Your task to perform on an android device: Play the latest video from the Huffington Post Image 0: 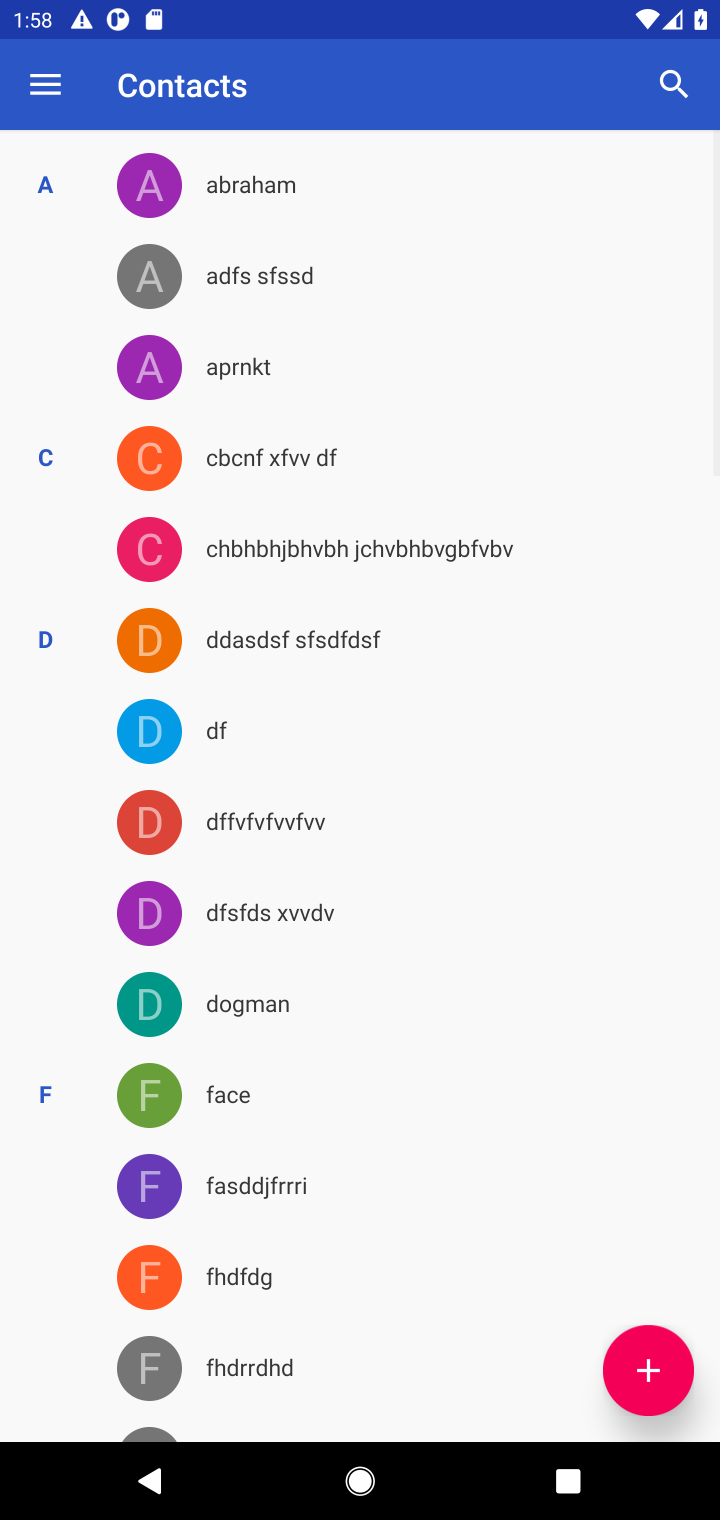
Step 0: press home button
Your task to perform on an android device: Play the latest video from the Huffington Post Image 1: 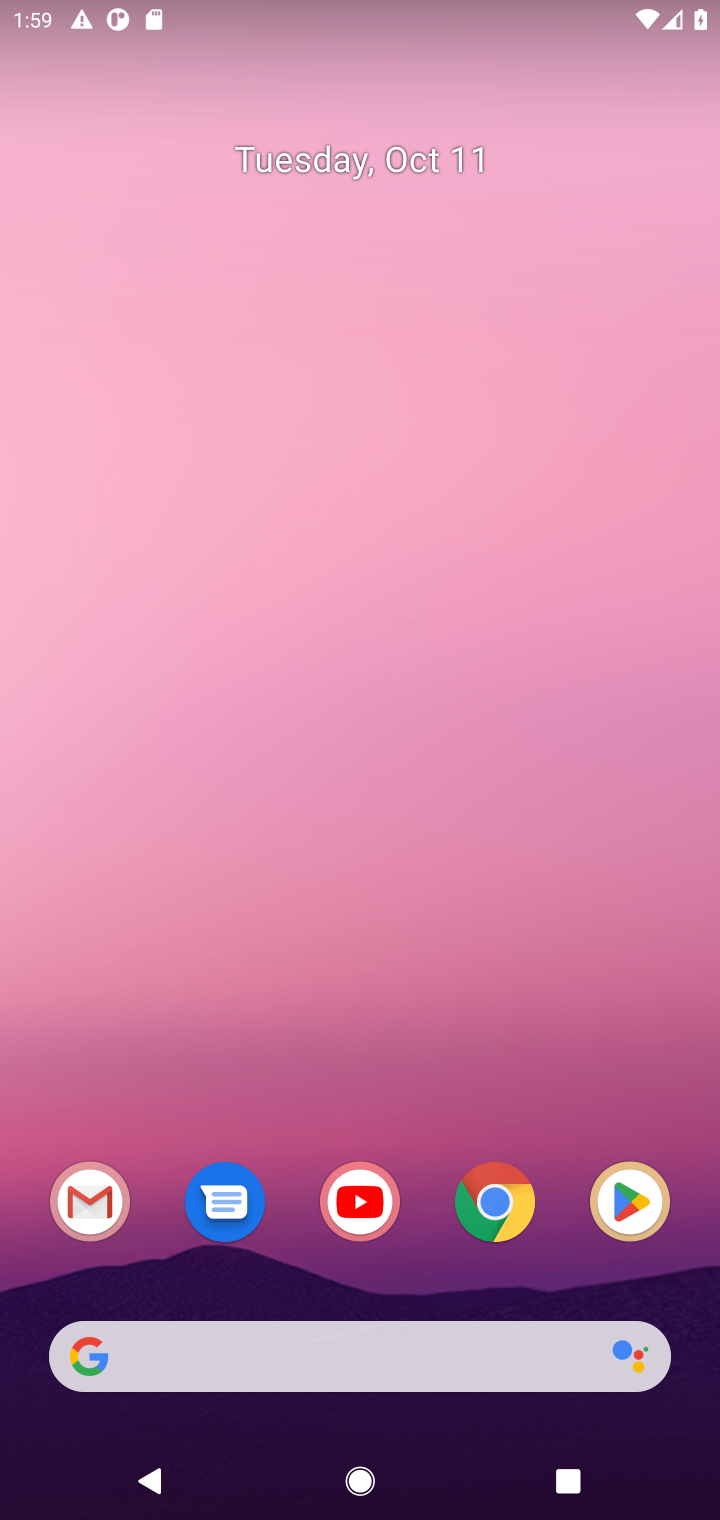
Step 1: click (497, 1205)
Your task to perform on an android device: Play the latest video from the Huffington Post Image 2: 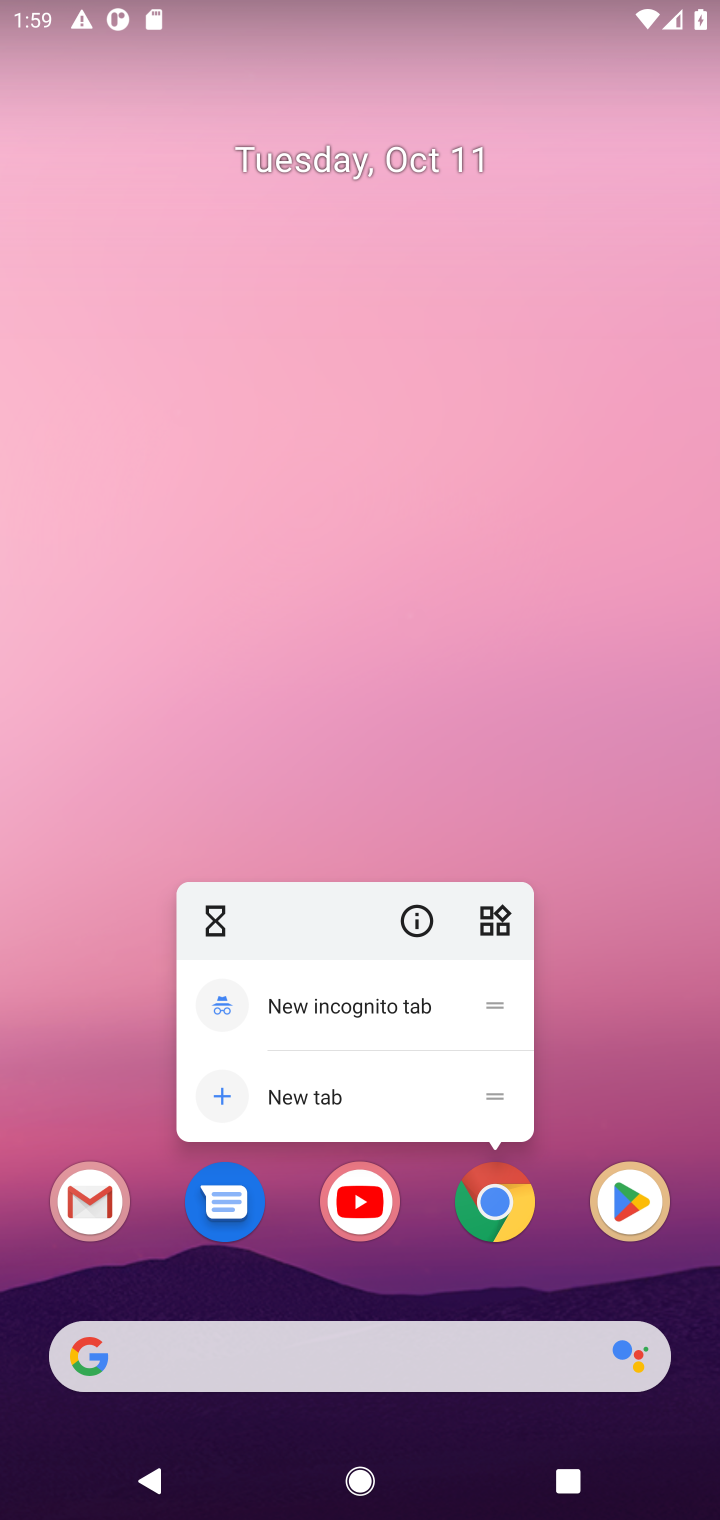
Step 2: click (497, 1218)
Your task to perform on an android device: Play the latest video from the Huffington Post Image 3: 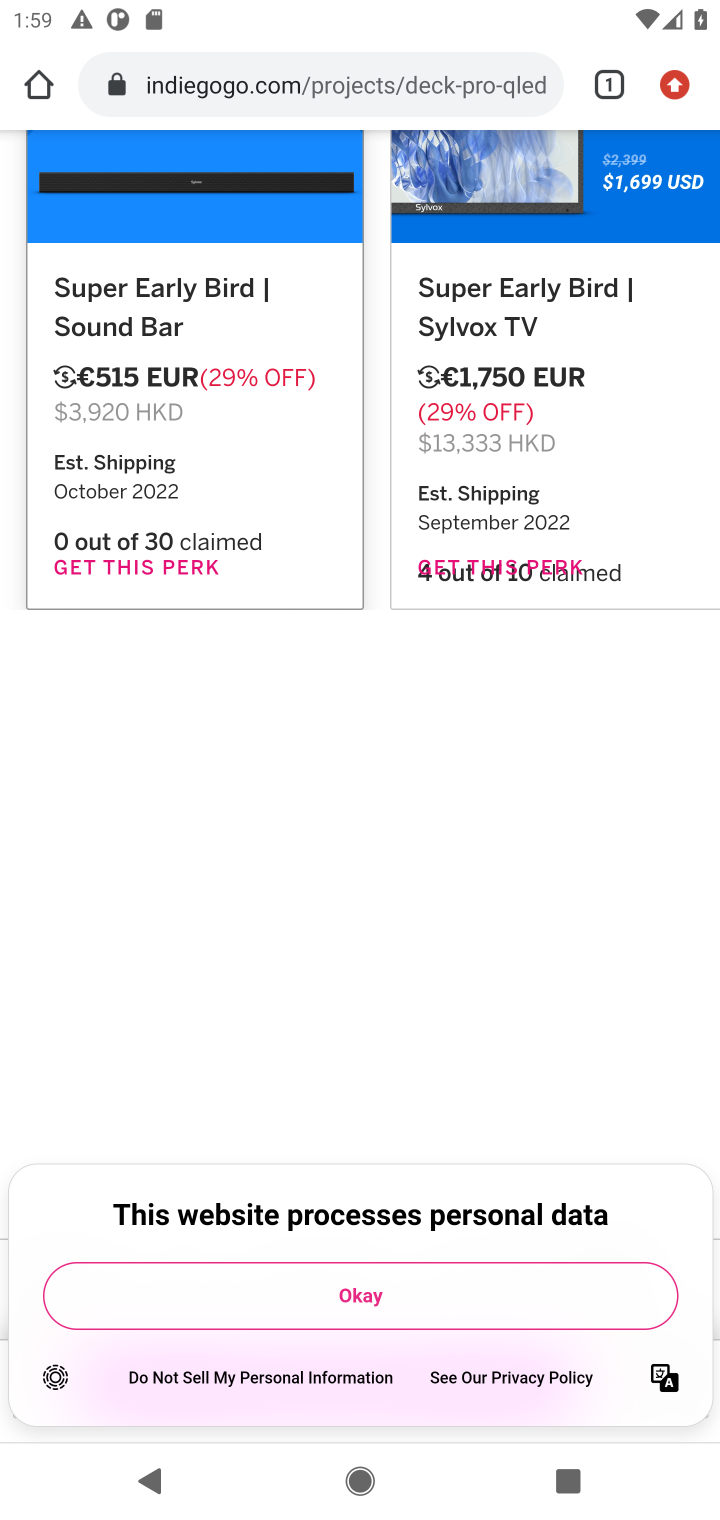
Step 3: click (440, 77)
Your task to perform on an android device: Play the latest video from the Huffington Post Image 4: 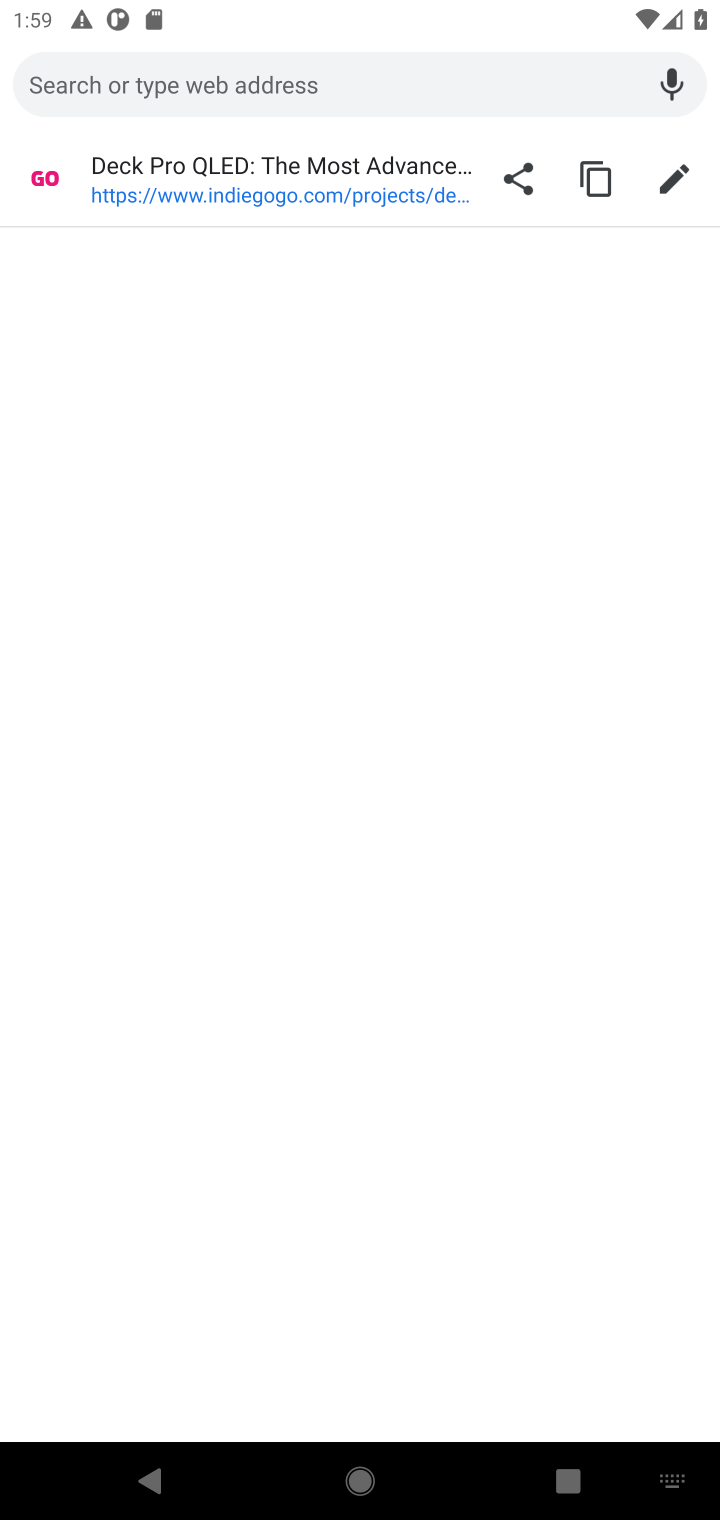
Step 4: type "Play the latest video from the Huffington Post"
Your task to perform on an android device: Play the latest video from the Huffington Post Image 5: 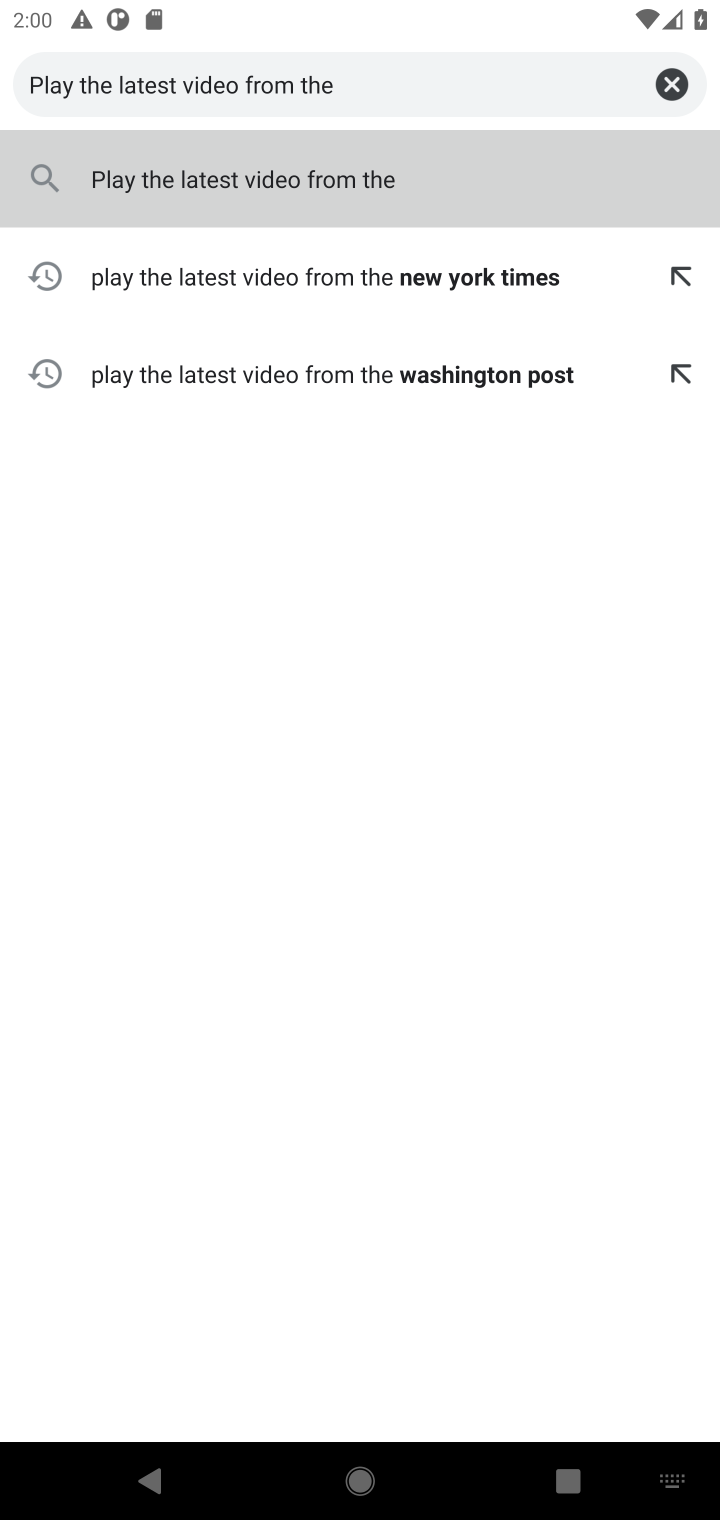
Step 5: press enter
Your task to perform on an android device: Play the latest video from the Huffington Post Image 6: 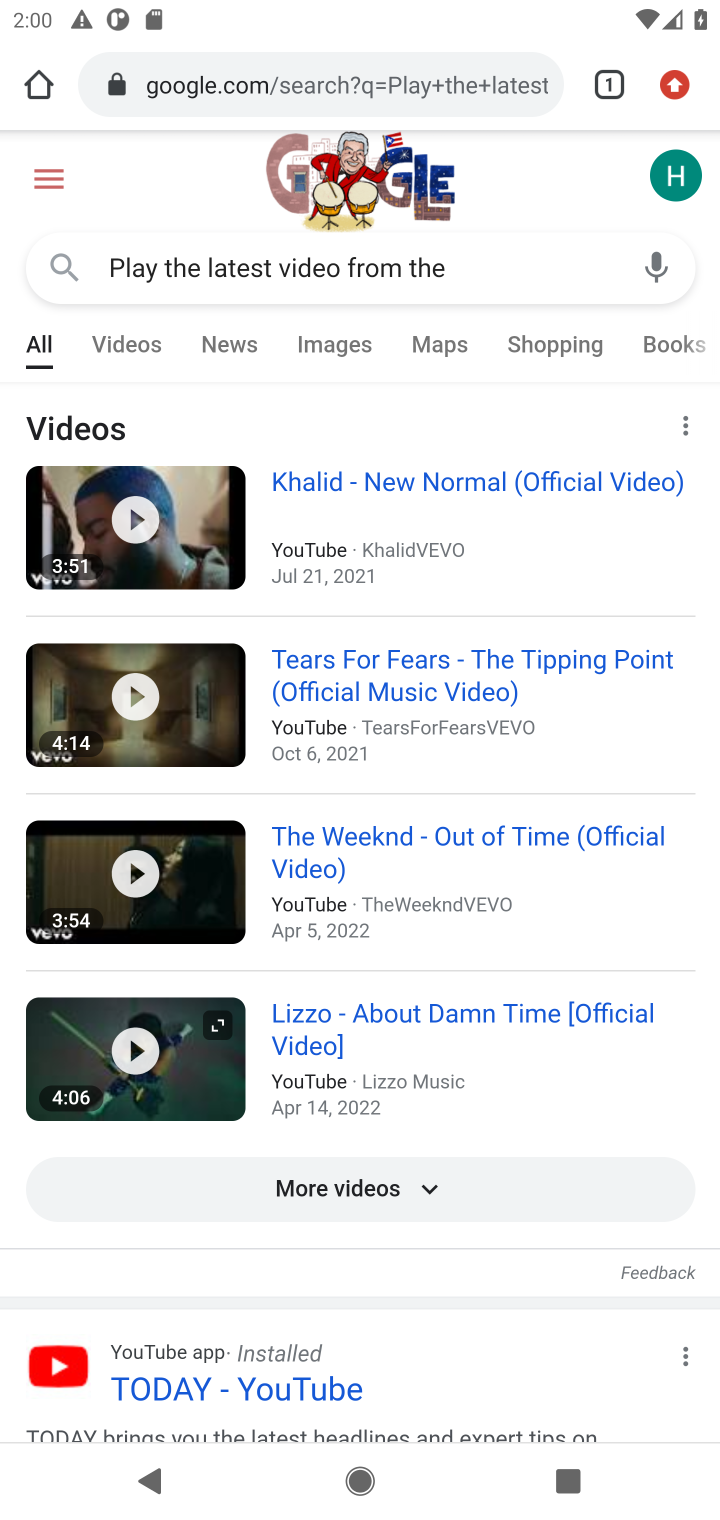
Step 6: click (163, 712)
Your task to perform on an android device: Play the latest video from the Huffington Post Image 7: 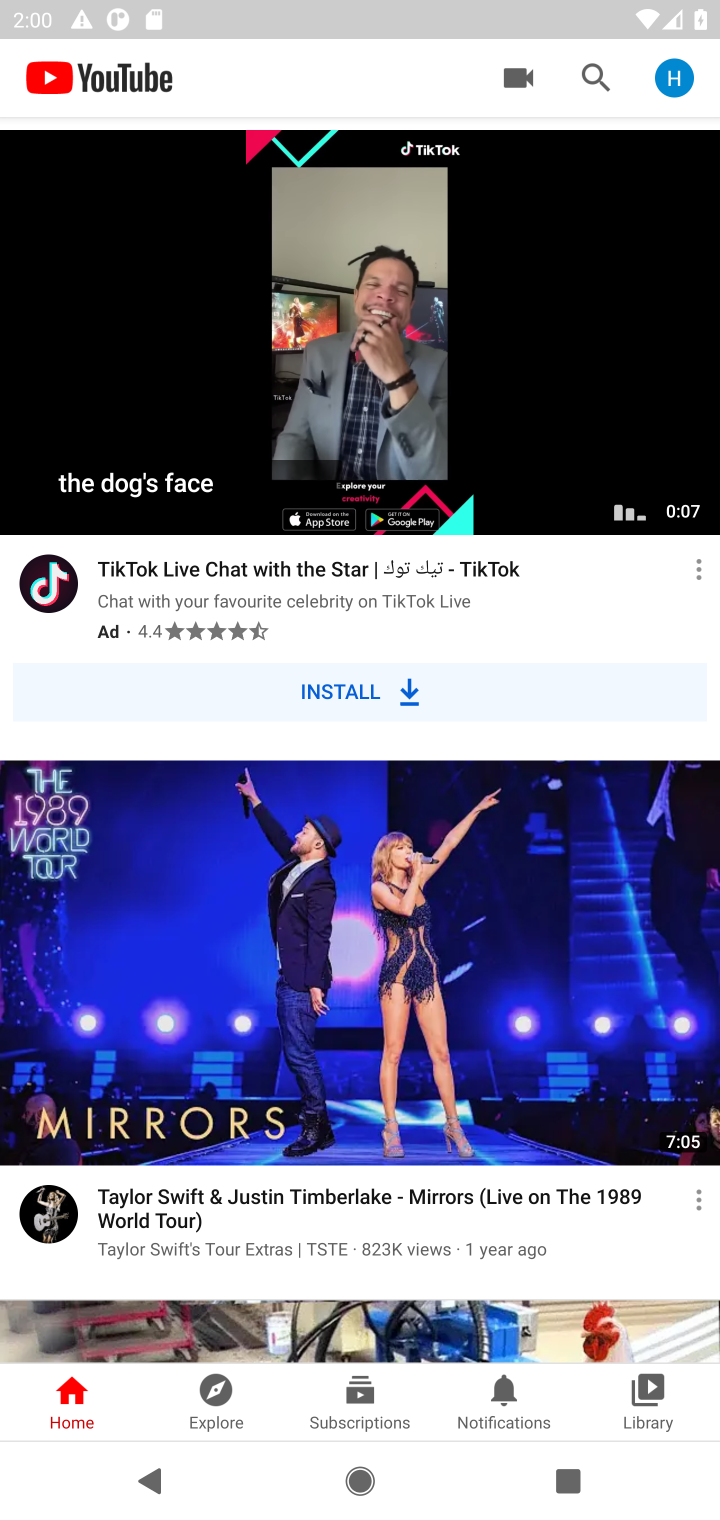
Step 7: drag from (243, 1238) to (695, 266)
Your task to perform on an android device: Play the latest video from the Huffington Post Image 8: 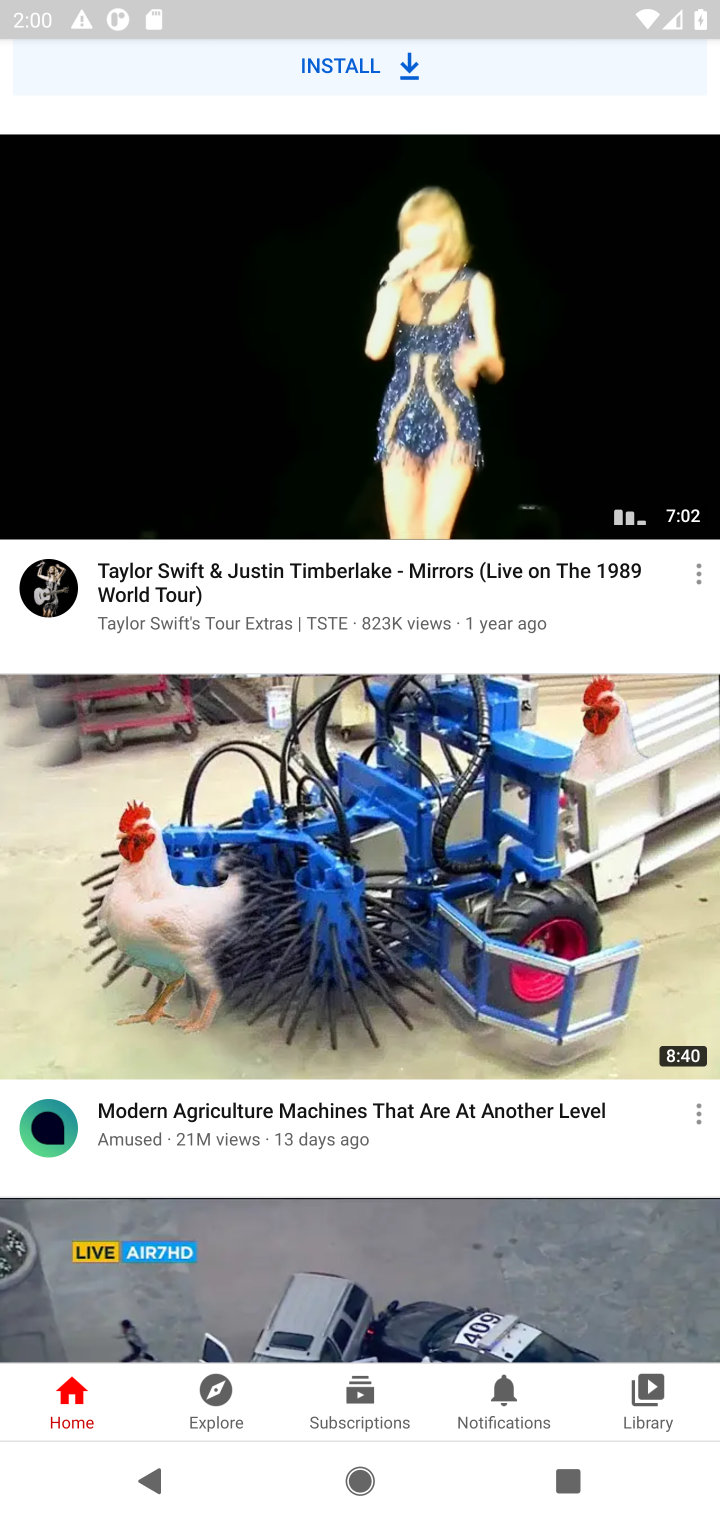
Step 8: drag from (505, 656) to (371, 1343)
Your task to perform on an android device: Play the latest video from the Huffington Post Image 9: 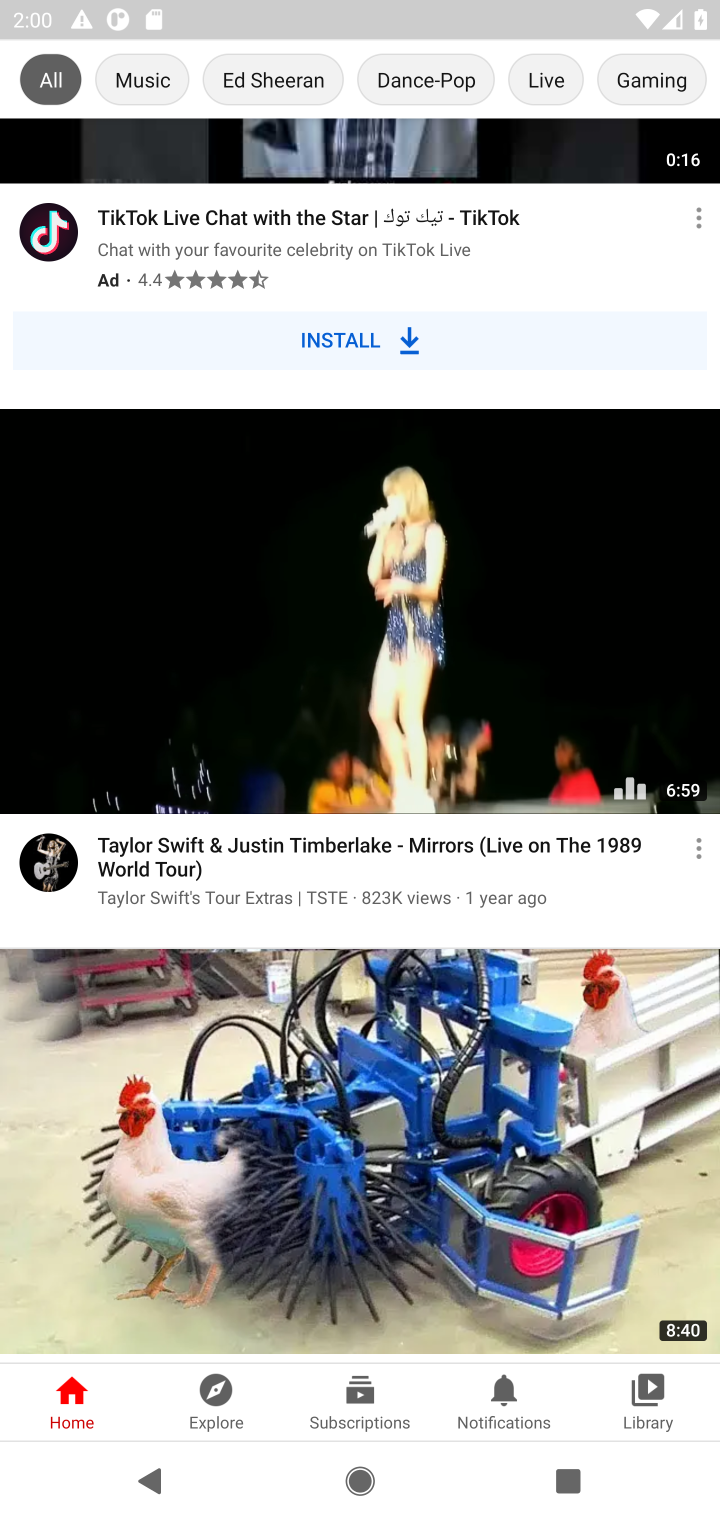
Step 9: drag from (460, 363) to (460, 1079)
Your task to perform on an android device: Play the latest video from the Huffington Post Image 10: 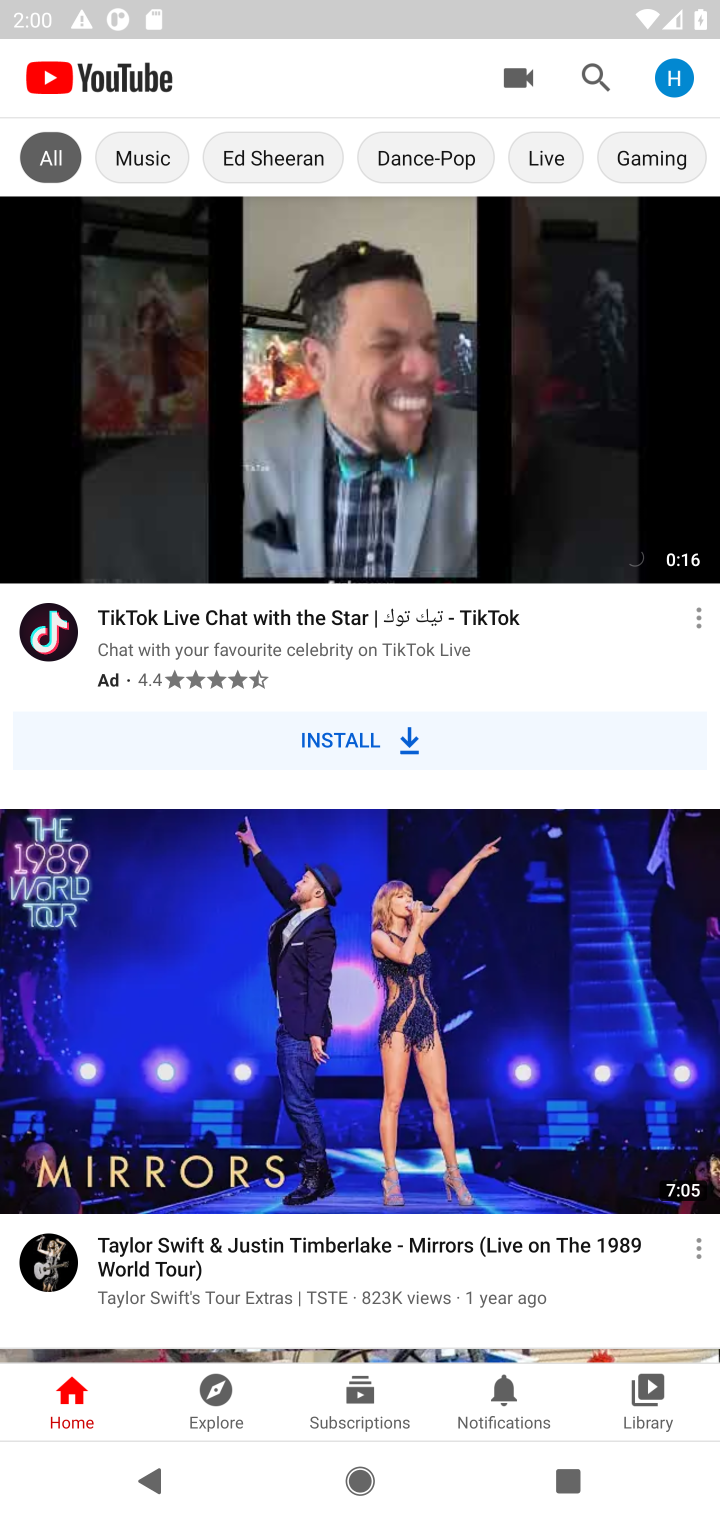
Step 10: click (371, 329)
Your task to perform on an android device: Play the latest video from the Huffington Post Image 11: 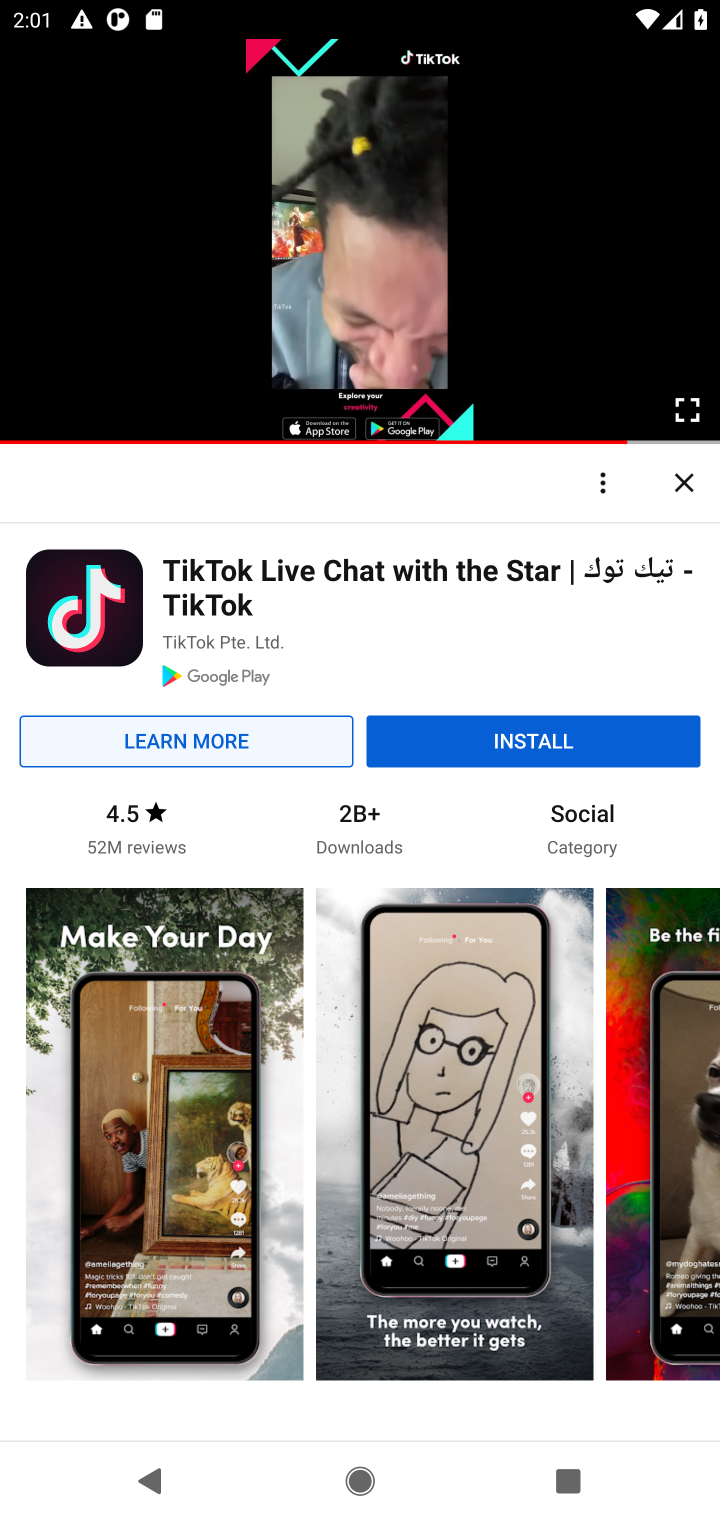
Step 11: click (381, 206)
Your task to perform on an android device: Play the latest video from the Huffington Post Image 12: 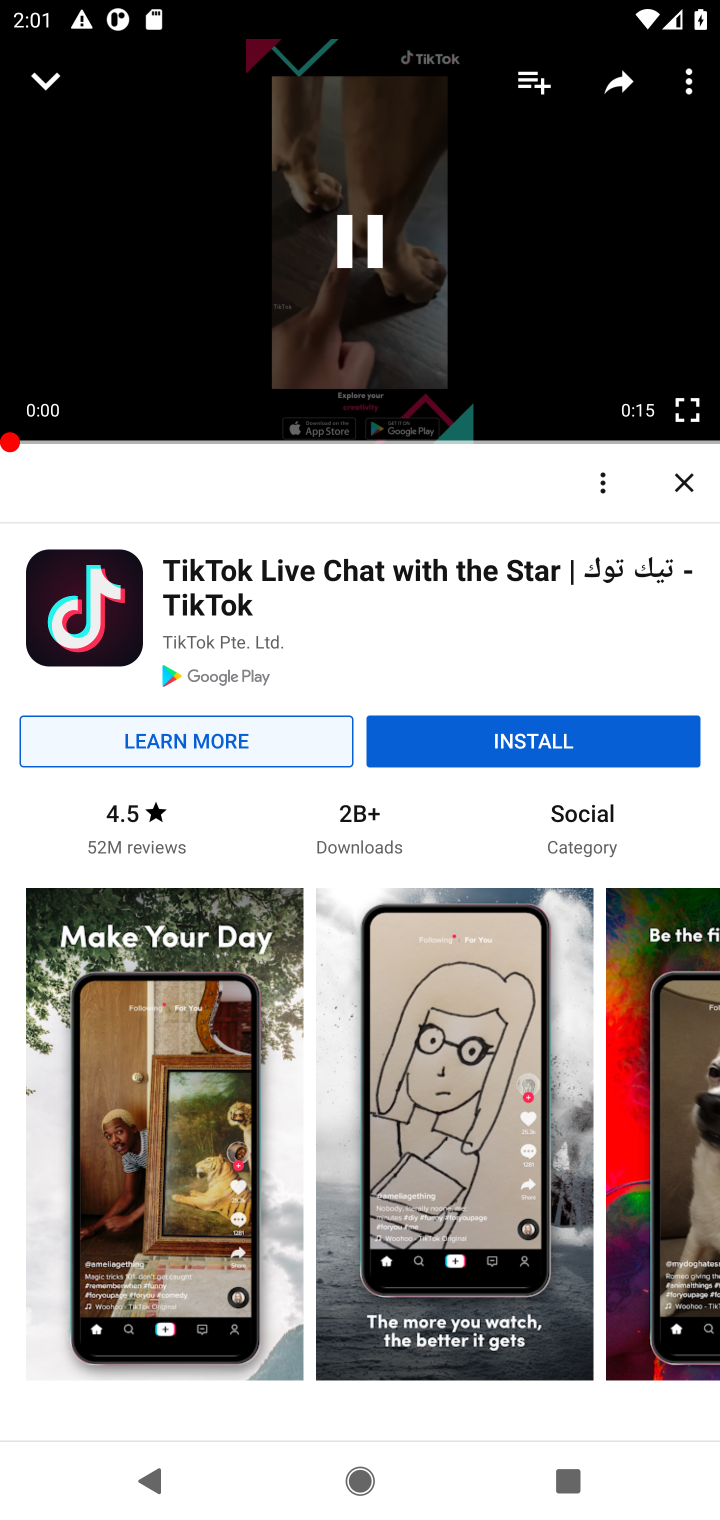
Step 12: click (370, 257)
Your task to perform on an android device: Play the latest video from the Huffington Post Image 13: 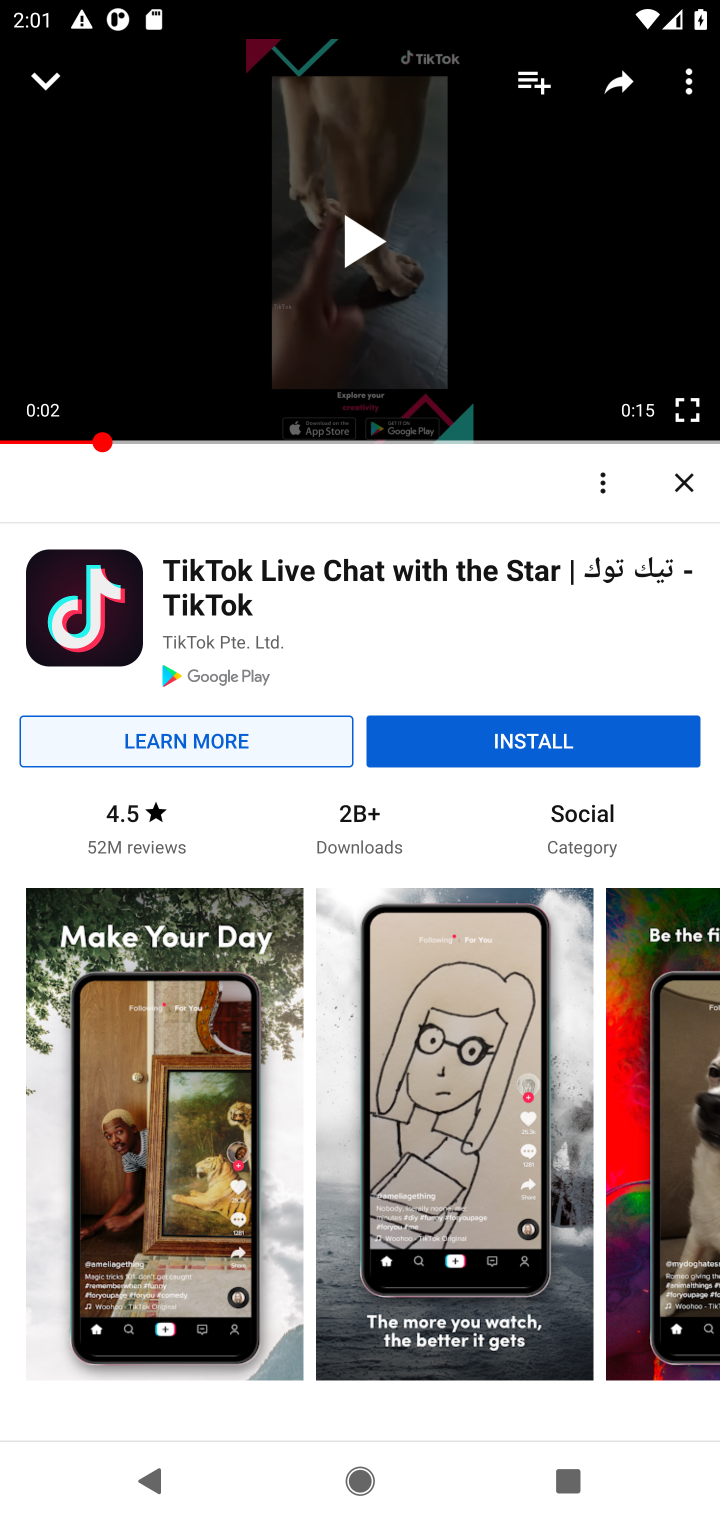
Step 13: task complete